Your task to perform on an android device: delete location history Image 0: 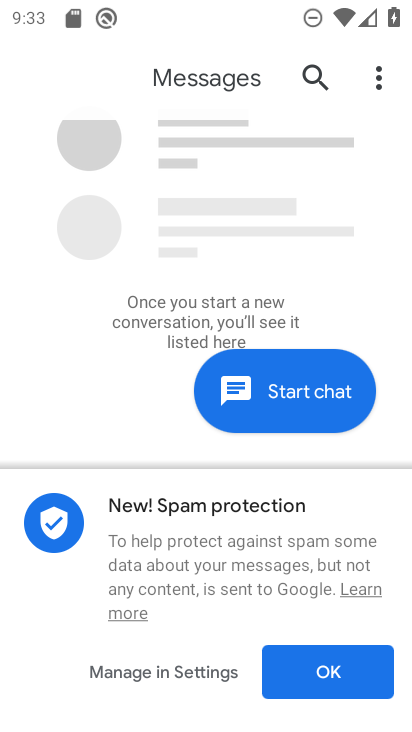
Step 0: press home button
Your task to perform on an android device: delete location history Image 1: 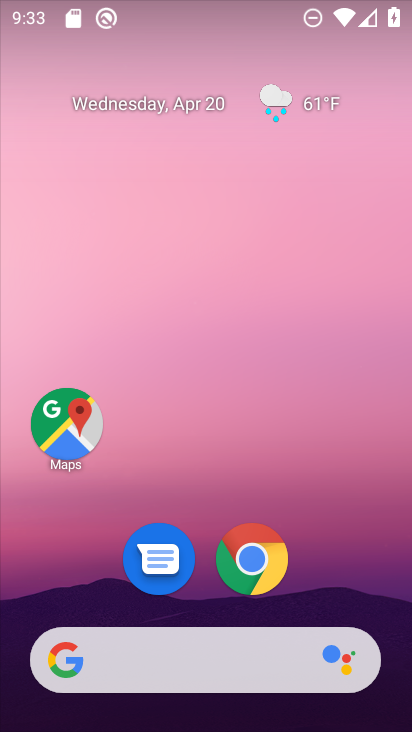
Step 1: click (64, 418)
Your task to perform on an android device: delete location history Image 2: 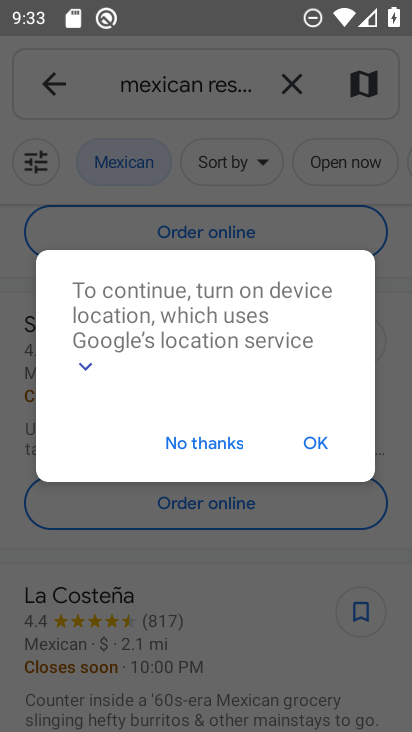
Step 2: click (314, 443)
Your task to perform on an android device: delete location history Image 3: 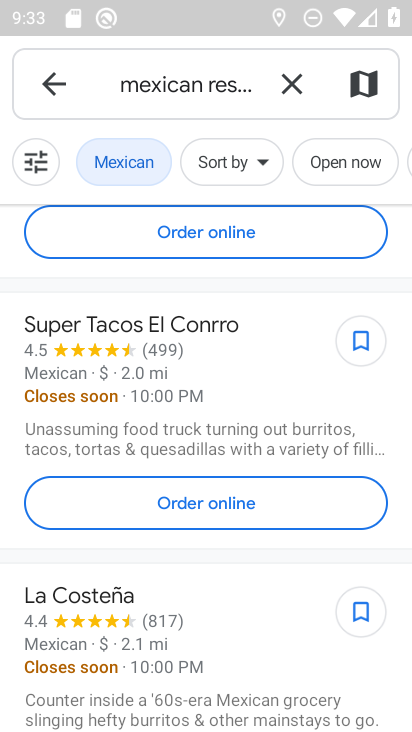
Step 3: press back button
Your task to perform on an android device: delete location history Image 4: 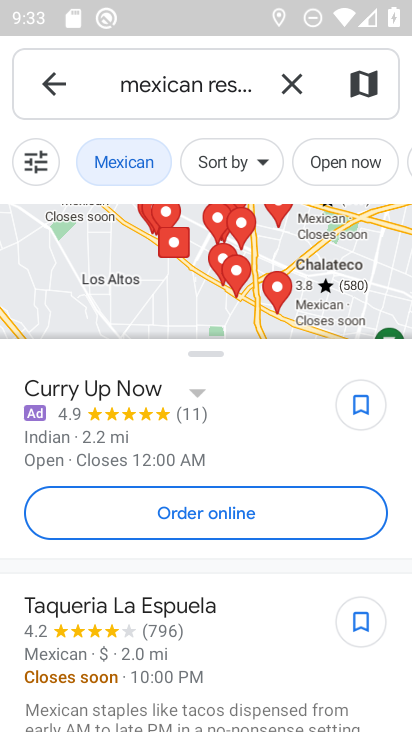
Step 4: press back button
Your task to perform on an android device: delete location history Image 5: 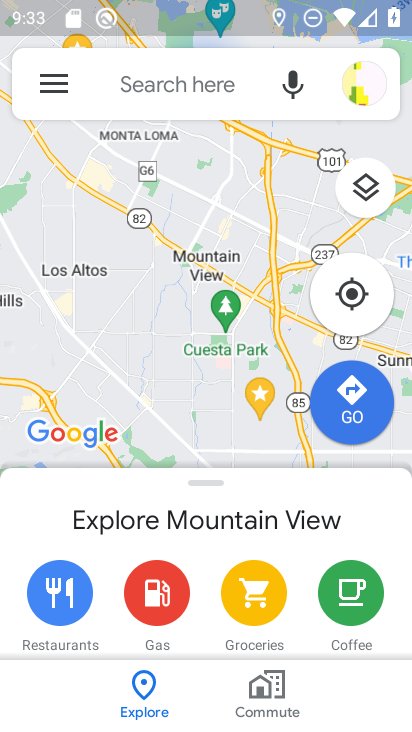
Step 5: click (52, 81)
Your task to perform on an android device: delete location history Image 6: 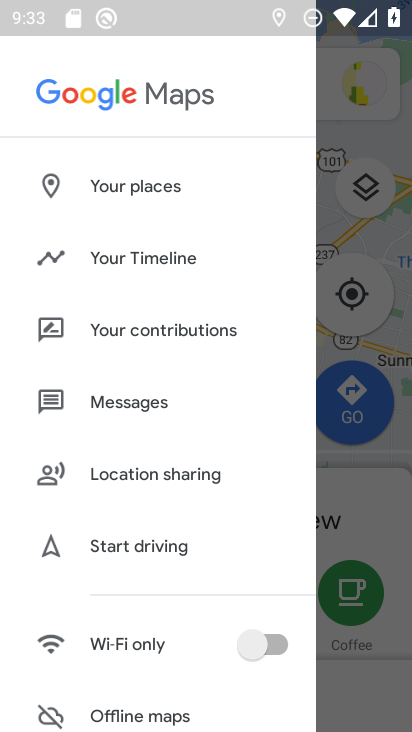
Step 6: drag from (213, 624) to (245, 190)
Your task to perform on an android device: delete location history Image 7: 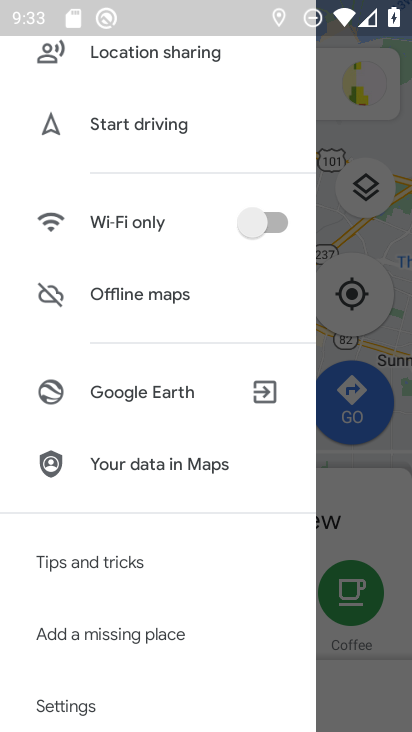
Step 7: drag from (204, 627) to (206, 346)
Your task to perform on an android device: delete location history Image 8: 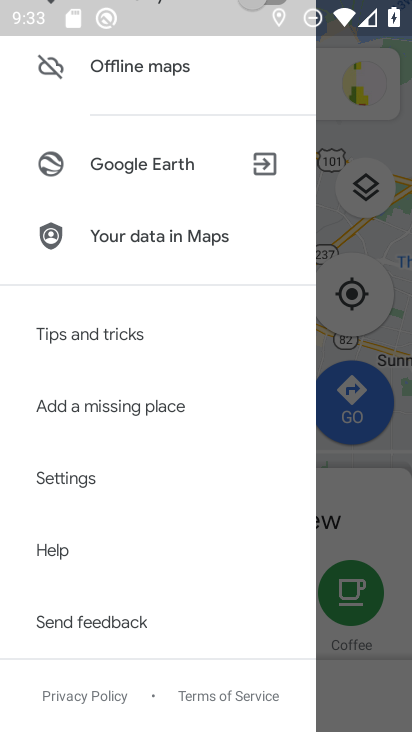
Step 8: click (60, 481)
Your task to perform on an android device: delete location history Image 9: 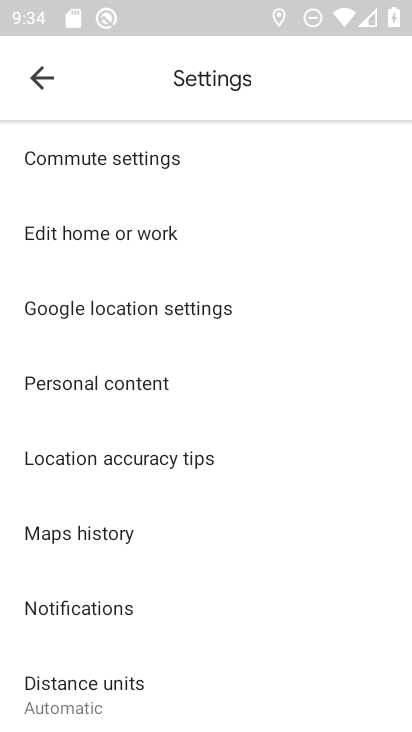
Step 9: click (72, 379)
Your task to perform on an android device: delete location history Image 10: 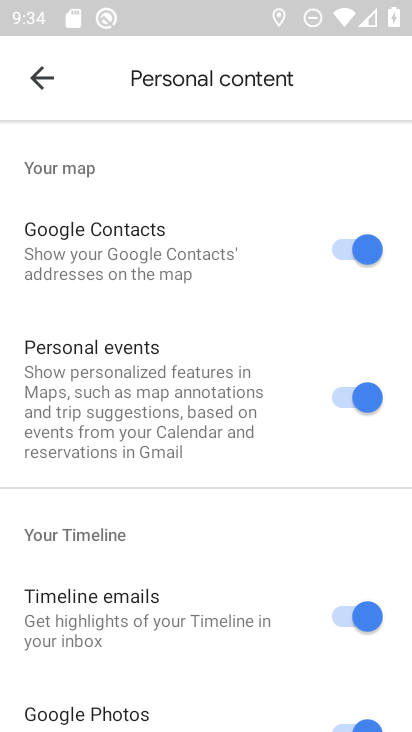
Step 10: drag from (254, 579) to (243, 316)
Your task to perform on an android device: delete location history Image 11: 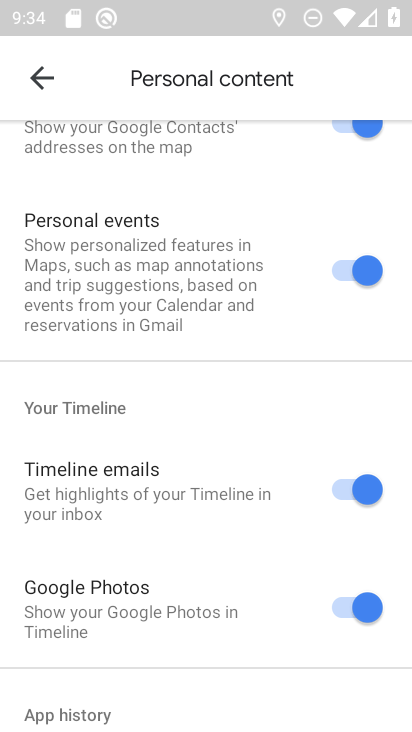
Step 11: drag from (287, 621) to (291, 238)
Your task to perform on an android device: delete location history Image 12: 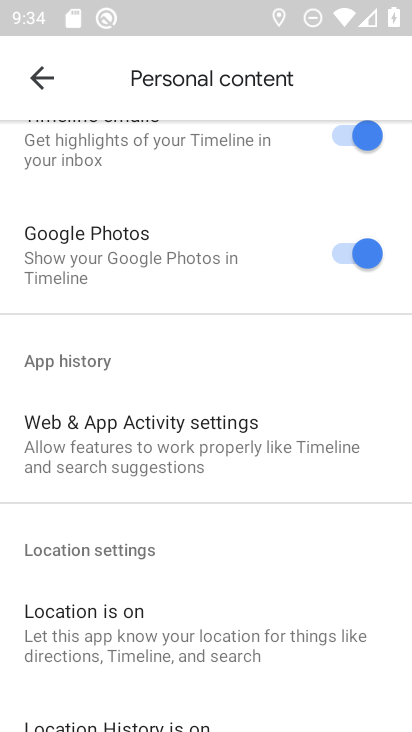
Step 12: drag from (281, 616) to (307, 239)
Your task to perform on an android device: delete location history Image 13: 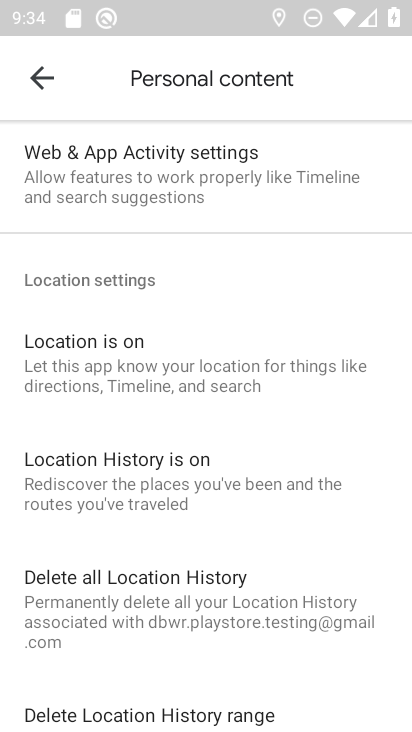
Step 13: click (58, 591)
Your task to perform on an android device: delete location history Image 14: 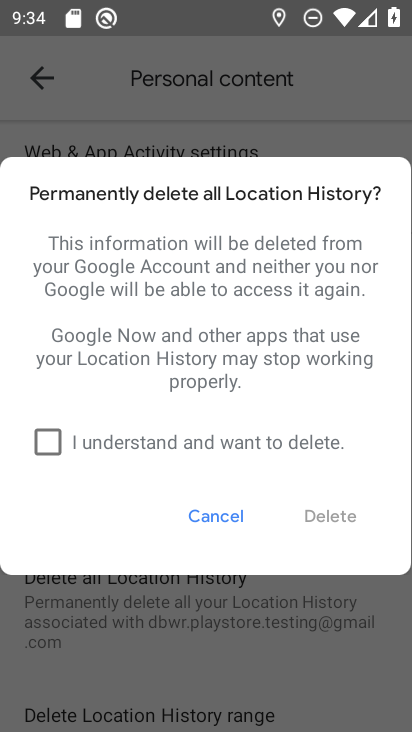
Step 14: click (43, 438)
Your task to perform on an android device: delete location history Image 15: 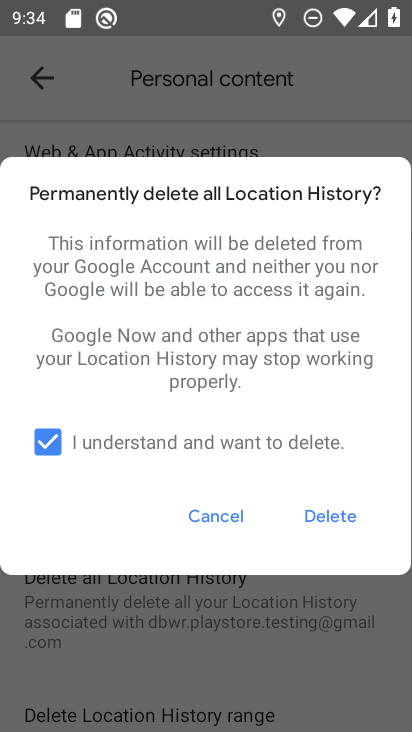
Step 15: click (330, 517)
Your task to perform on an android device: delete location history Image 16: 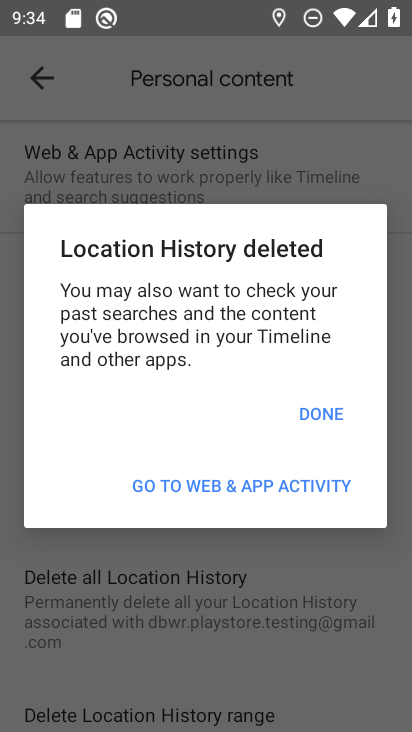
Step 16: click (320, 416)
Your task to perform on an android device: delete location history Image 17: 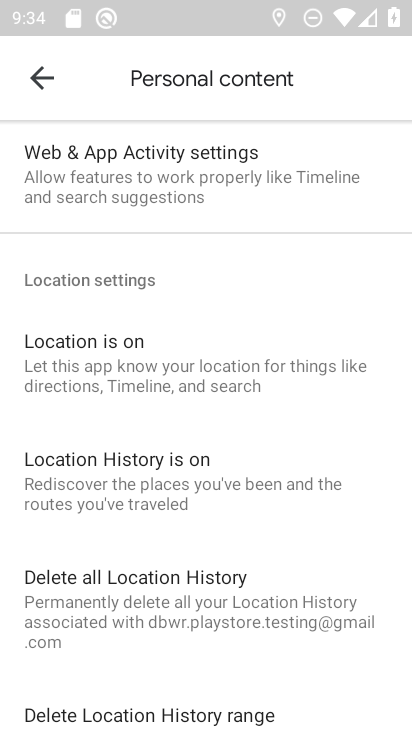
Step 17: task complete